Your task to perform on an android device: turn on data saver in the chrome app Image 0: 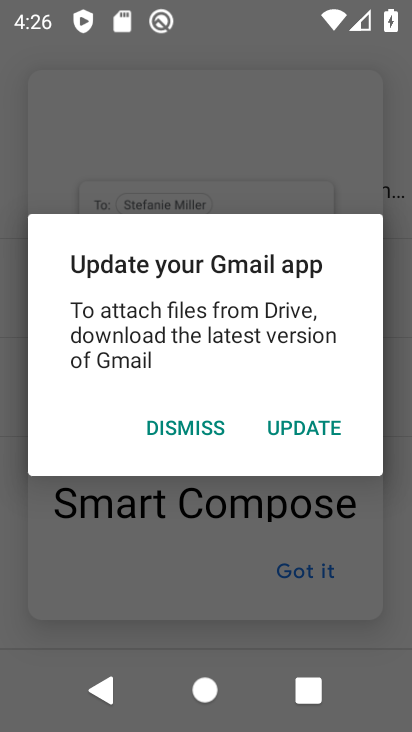
Step 0: press home button
Your task to perform on an android device: turn on data saver in the chrome app Image 1: 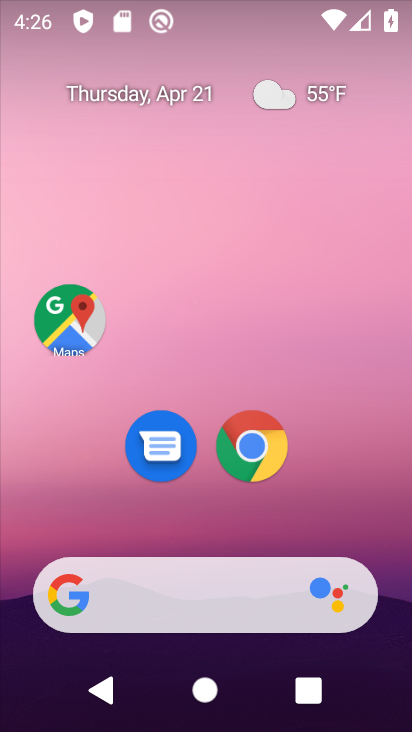
Step 1: click (260, 449)
Your task to perform on an android device: turn on data saver in the chrome app Image 2: 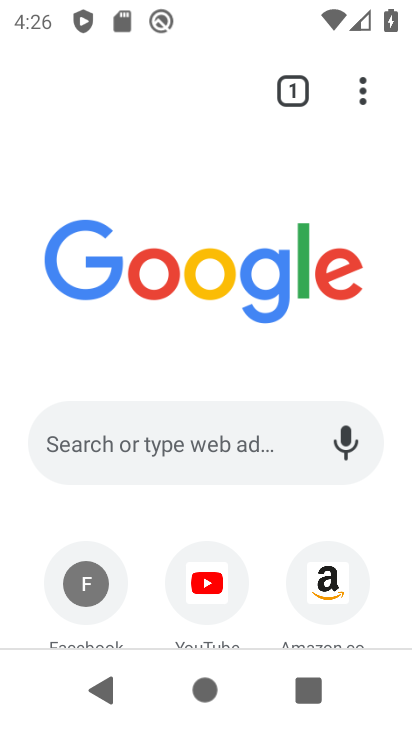
Step 2: click (366, 98)
Your task to perform on an android device: turn on data saver in the chrome app Image 3: 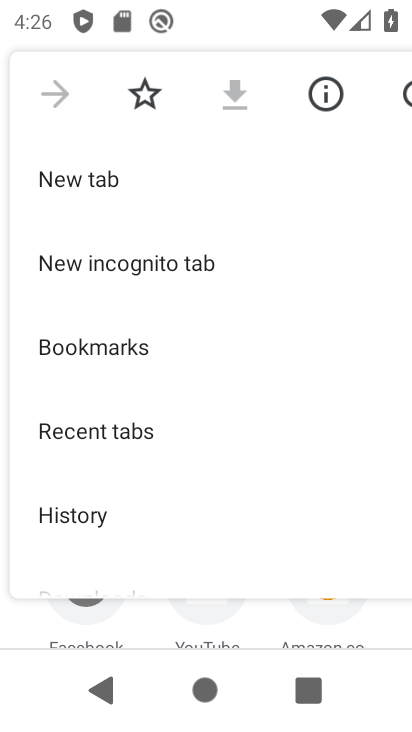
Step 3: drag from (152, 493) to (156, 94)
Your task to perform on an android device: turn on data saver in the chrome app Image 4: 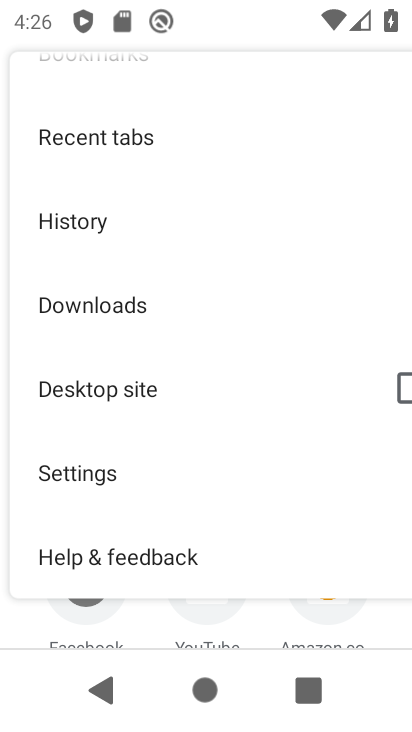
Step 4: click (160, 492)
Your task to perform on an android device: turn on data saver in the chrome app Image 5: 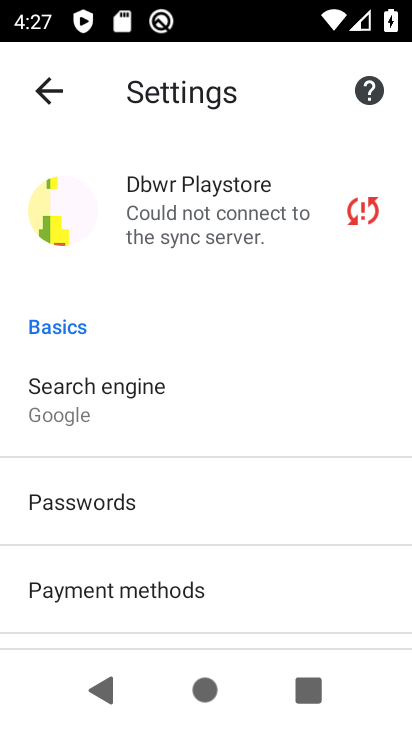
Step 5: drag from (160, 492) to (226, 189)
Your task to perform on an android device: turn on data saver in the chrome app Image 6: 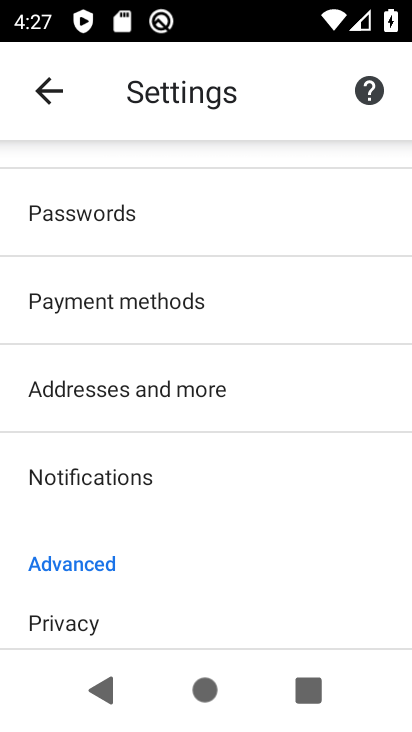
Step 6: drag from (129, 568) to (174, 287)
Your task to perform on an android device: turn on data saver in the chrome app Image 7: 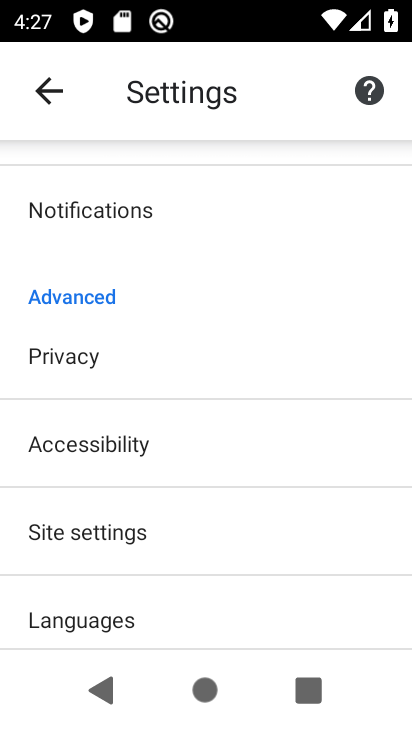
Step 7: drag from (154, 565) to (229, 298)
Your task to perform on an android device: turn on data saver in the chrome app Image 8: 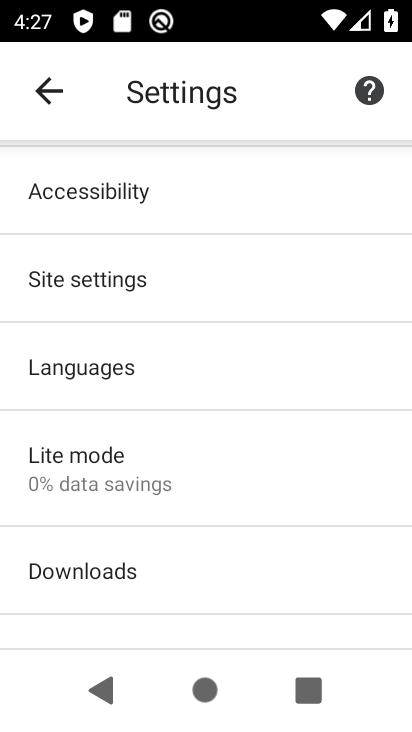
Step 8: click (147, 501)
Your task to perform on an android device: turn on data saver in the chrome app Image 9: 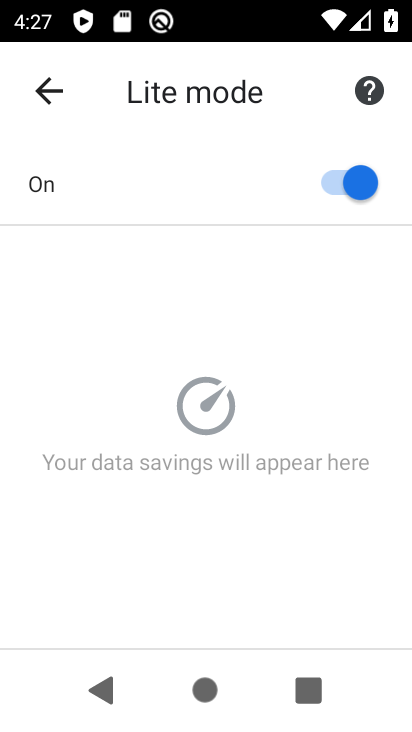
Step 9: task complete